Your task to perform on an android device: set the stopwatch Image 0: 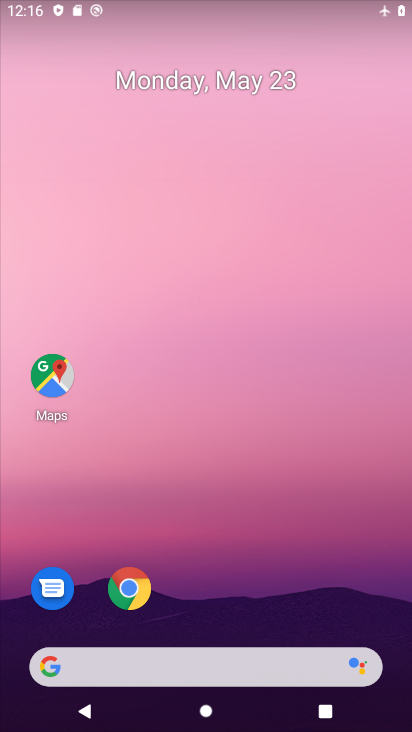
Step 0: drag from (238, 715) to (233, 38)
Your task to perform on an android device: set the stopwatch Image 1: 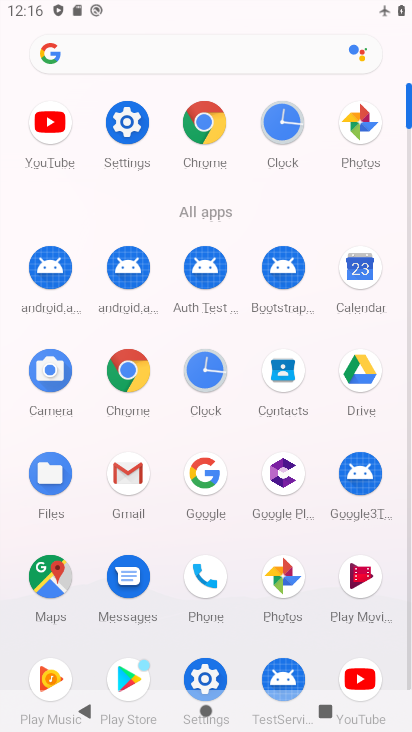
Step 1: click (209, 372)
Your task to perform on an android device: set the stopwatch Image 2: 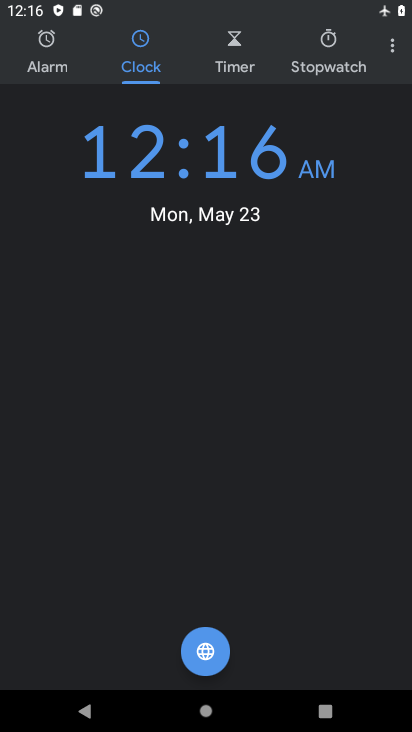
Step 2: click (326, 49)
Your task to perform on an android device: set the stopwatch Image 3: 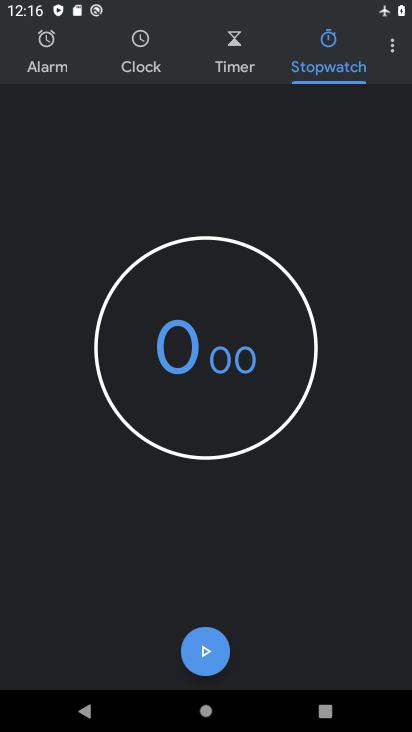
Step 3: click (141, 378)
Your task to perform on an android device: set the stopwatch Image 4: 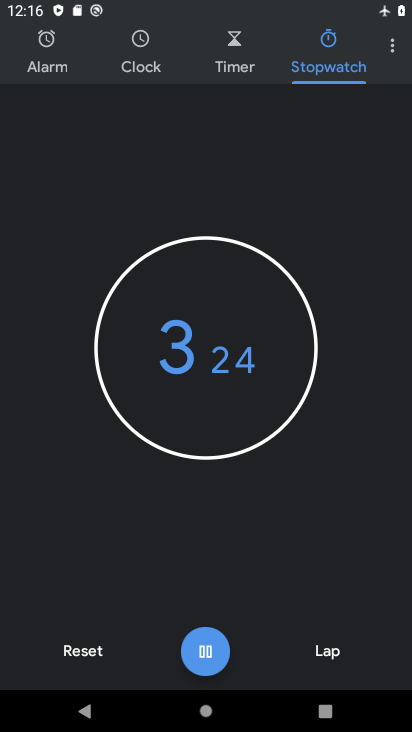
Step 4: type "88"
Your task to perform on an android device: set the stopwatch Image 5: 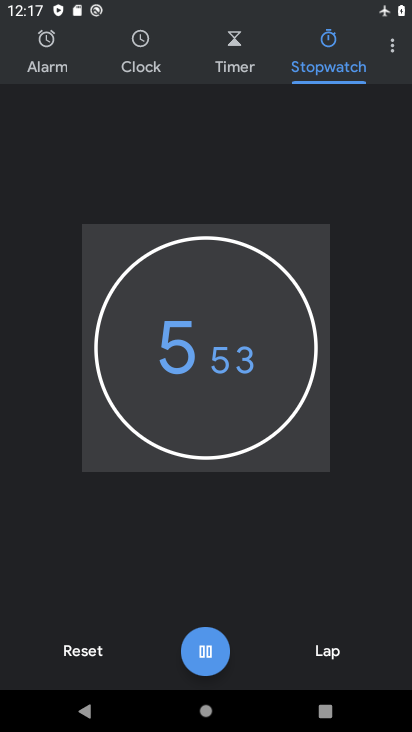
Step 5: task complete